Your task to perform on an android device: check android version Image 0: 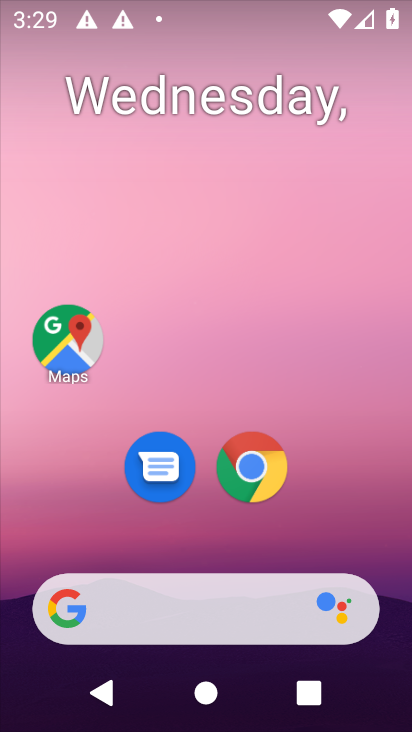
Step 0: drag from (19, 658) to (167, 204)
Your task to perform on an android device: check android version Image 1: 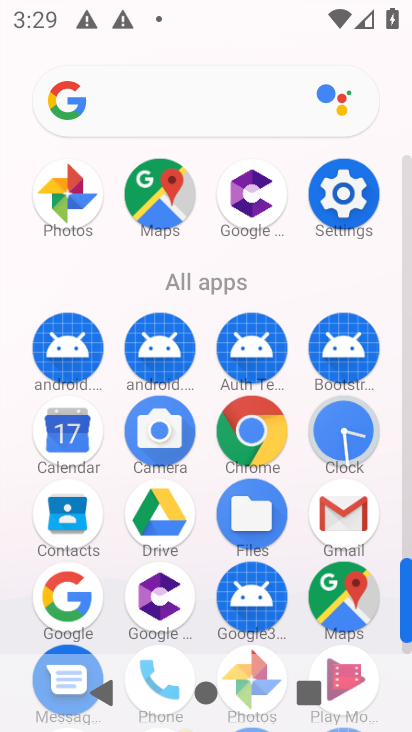
Step 1: click (340, 196)
Your task to perform on an android device: check android version Image 2: 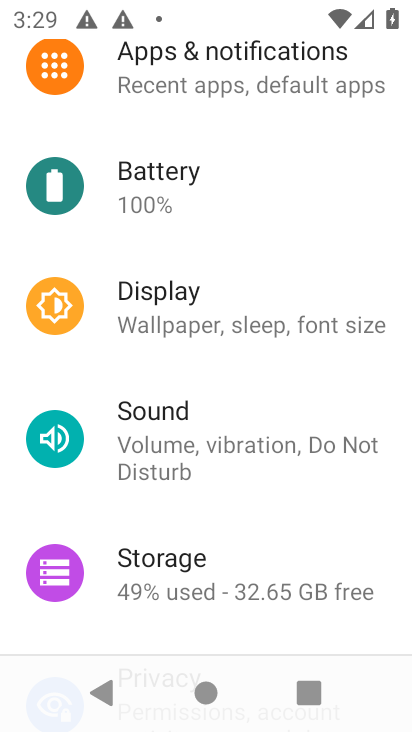
Step 2: drag from (358, 623) to (391, 388)
Your task to perform on an android device: check android version Image 3: 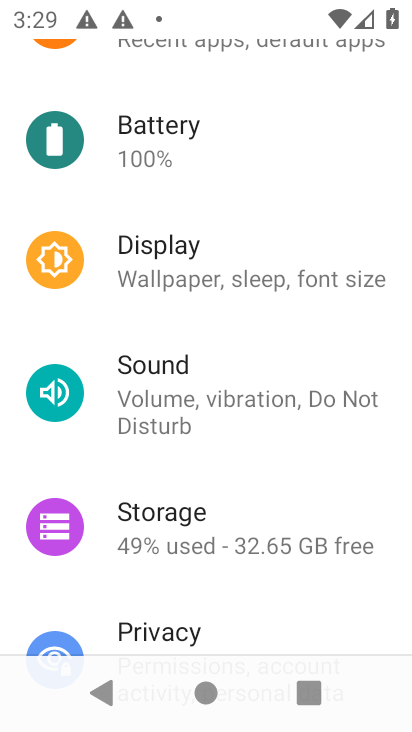
Step 3: drag from (383, 637) to (407, 522)
Your task to perform on an android device: check android version Image 4: 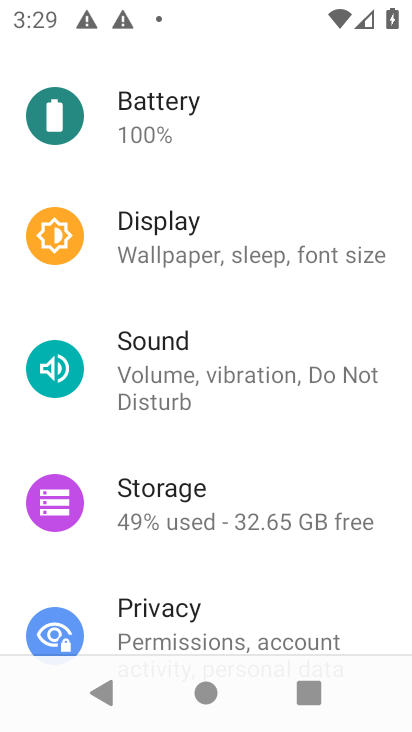
Step 4: drag from (367, 636) to (378, 236)
Your task to perform on an android device: check android version Image 5: 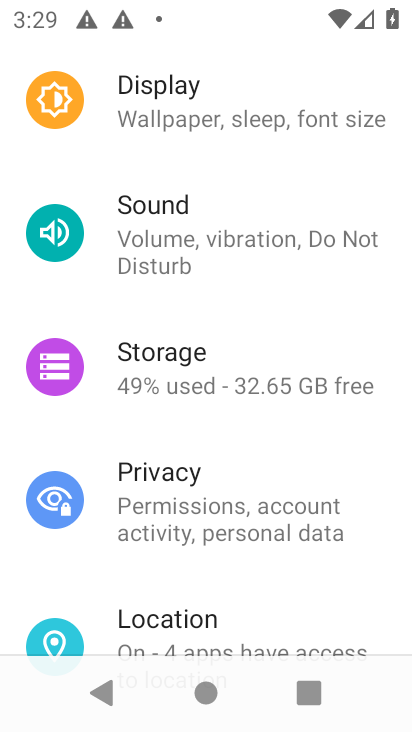
Step 5: drag from (357, 586) to (409, 355)
Your task to perform on an android device: check android version Image 6: 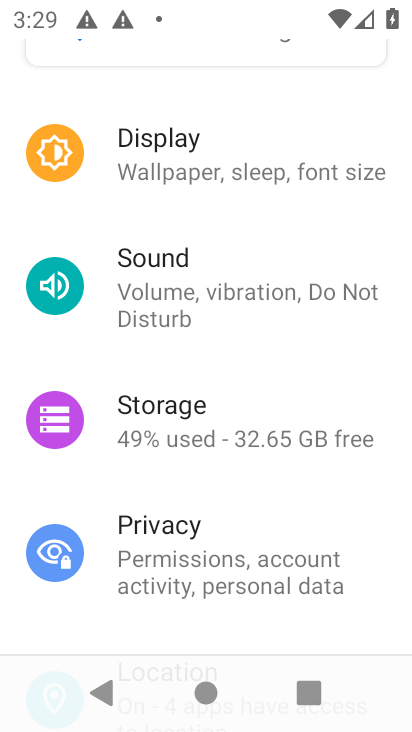
Step 6: drag from (375, 554) to (409, 392)
Your task to perform on an android device: check android version Image 7: 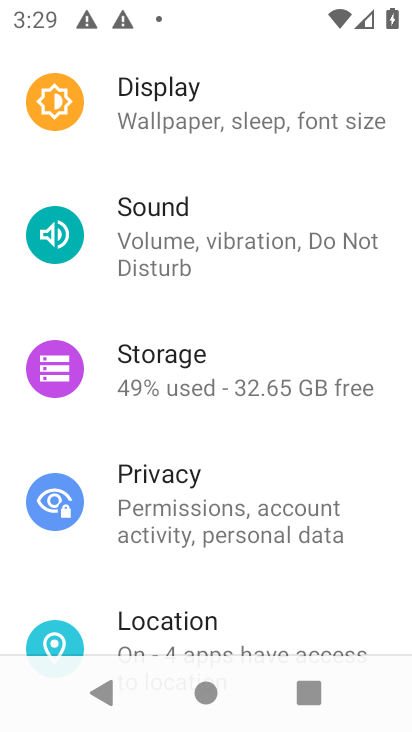
Step 7: drag from (370, 634) to (380, 373)
Your task to perform on an android device: check android version Image 8: 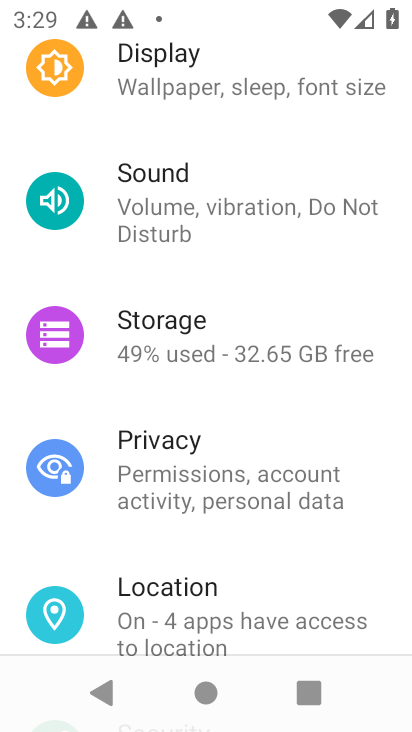
Step 8: drag from (384, 625) to (376, 525)
Your task to perform on an android device: check android version Image 9: 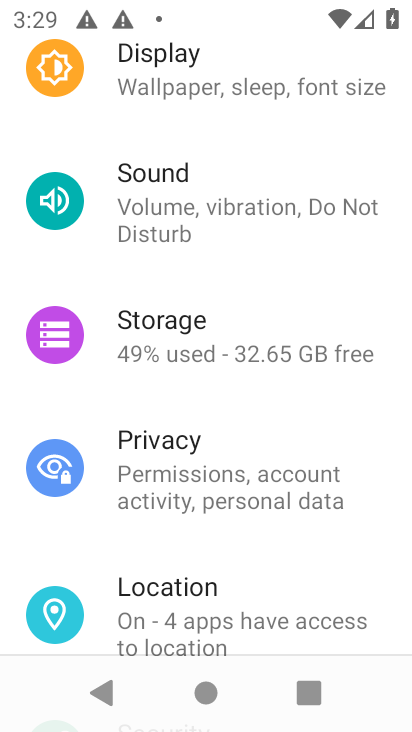
Step 9: drag from (387, 632) to (320, 250)
Your task to perform on an android device: check android version Image 10: 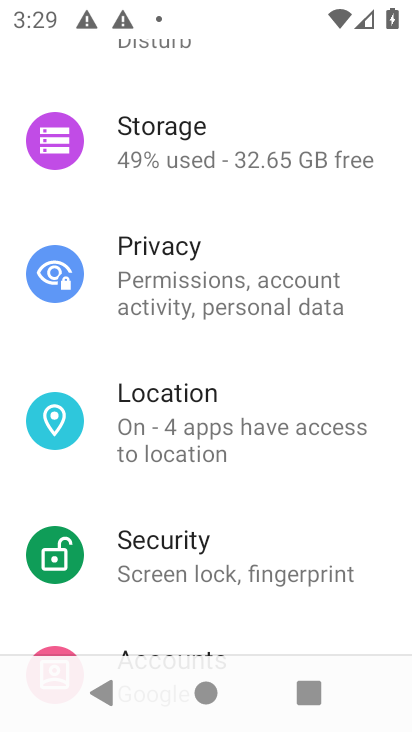
Step 10: drag from (365, 648) to (308, 191)
Your task to perform on an android device: check android version Image 11: 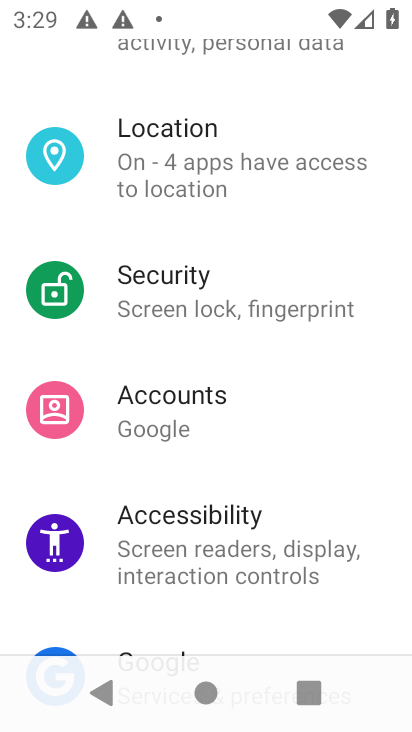
Step 11: drag from (359, 635) to (328, 273)
Your task to perform on an android device: check android version Image 12: 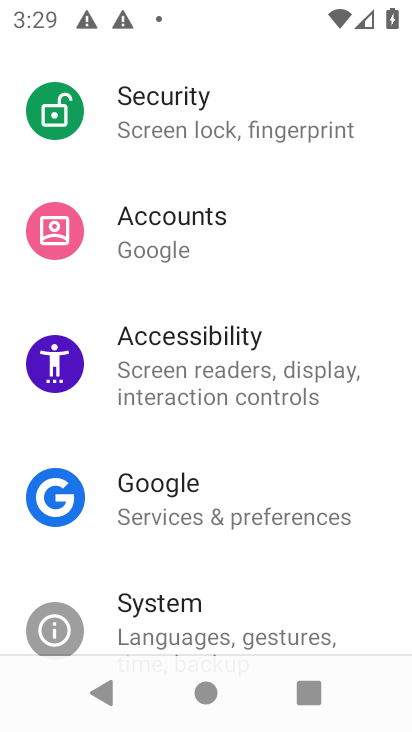
Step 12: drag from (384, 626) to (366, 256)
Your task to perform on an android device: check android version Image 13: 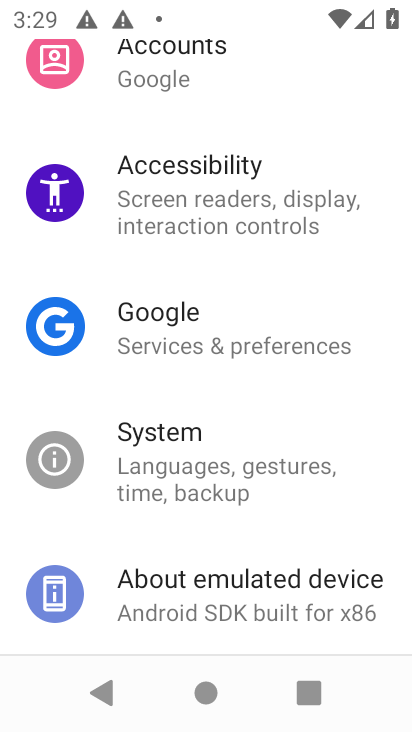
Step 13: click (276, 602)
Your task to perform on an android device: check android version Image 14: 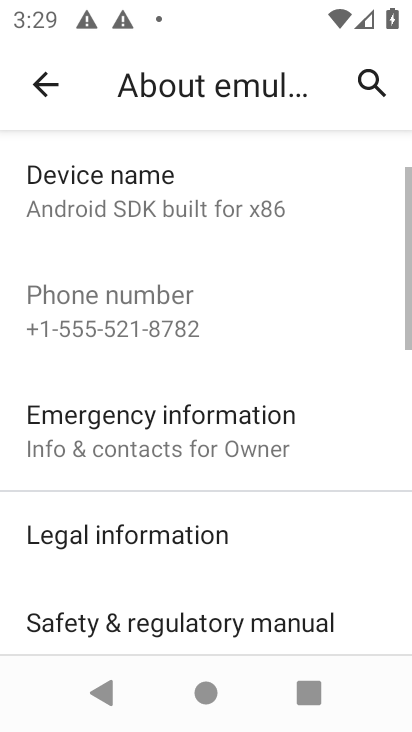
Step 14: task complete